Your task to perform on an android device: turn off notifications settings in the gmail app Image 0: 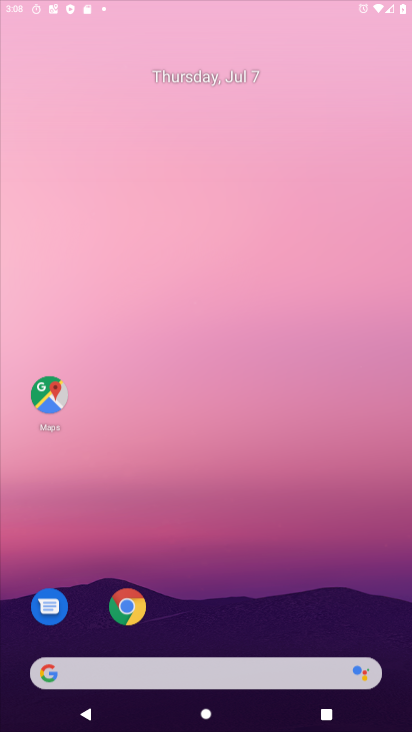
Step 0: click (232, 99)
Your task to perform on an android device: turn off notifications settings in the gmail app Image 1: 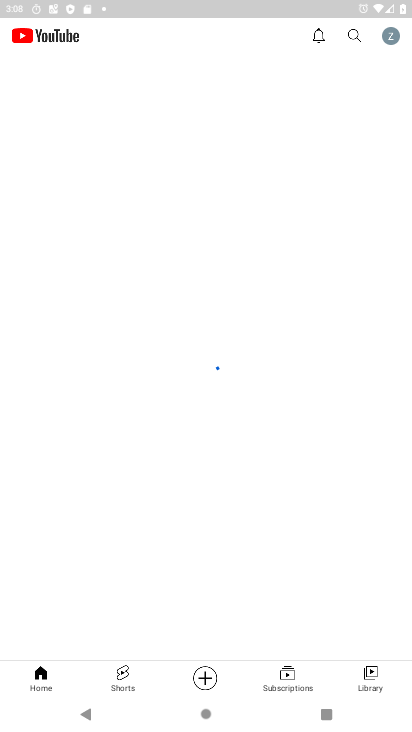
Step 1: press home button
Your task to perform on an android device: turn off notifications settings in the gmail app Image 2: 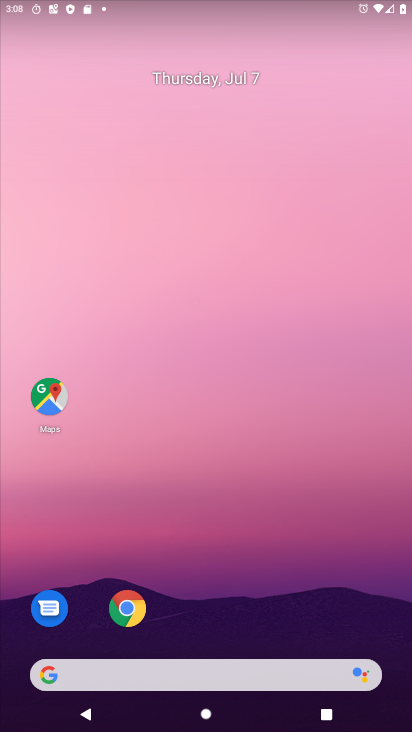
Step 2: drag from (257, 727) to (230, 118)
Your task to perform on an android device: turn off notifications settings in the gmail app Image 3: 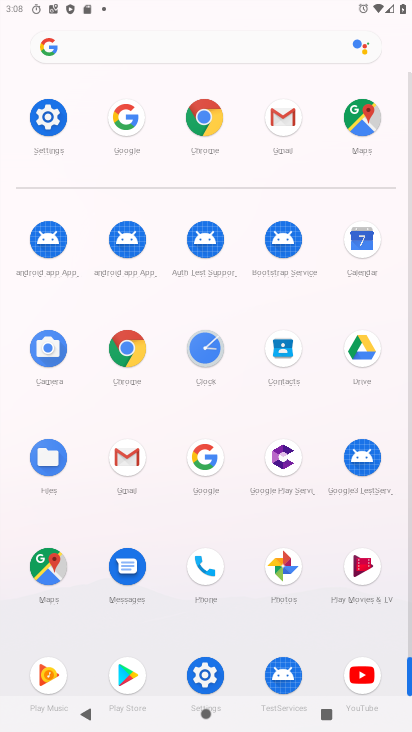
Step 3: click (129, 461)
Your task to perform on an android device: turn off notifications settings in the gmail app Image 4: 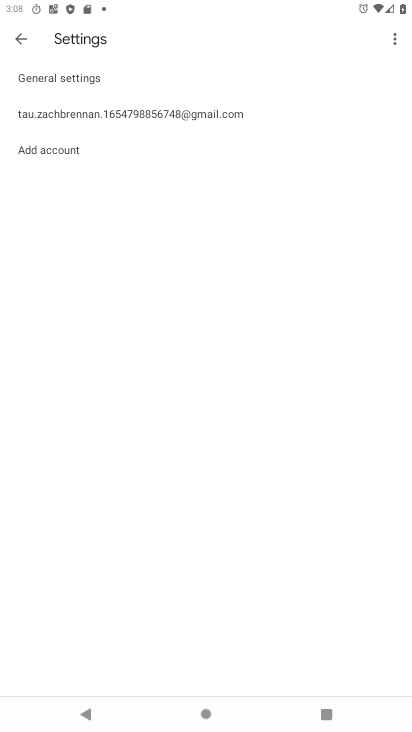
Step 4: click (19, 36)
Your task to perform on an android device: turn off notifications settings in the gmail app Image 5: 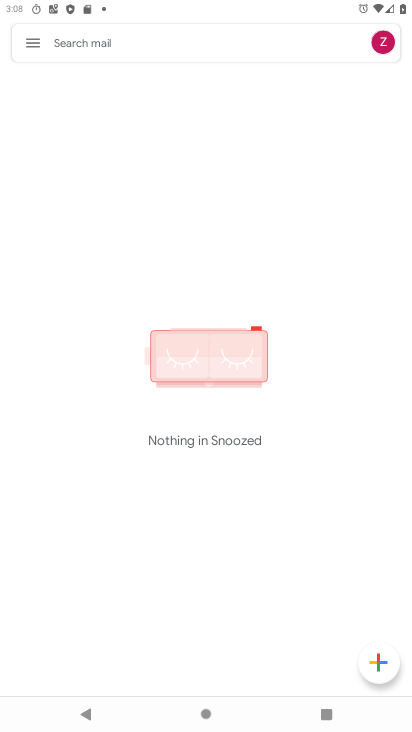
Step 5: click (31, 38)
Your task to perform on an android device: turn off notifications settings in the gmail app Image 6: 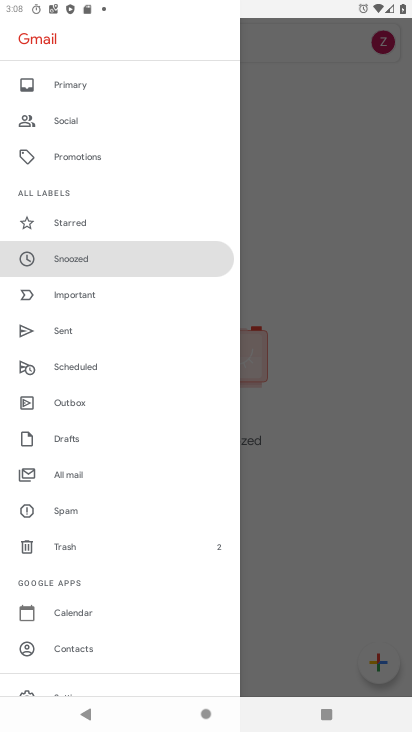
Step 6: drag from (99, 678) to (103, 287)
Your task to perform on an android device: turn off notifications settings in the gmail app Image 7: 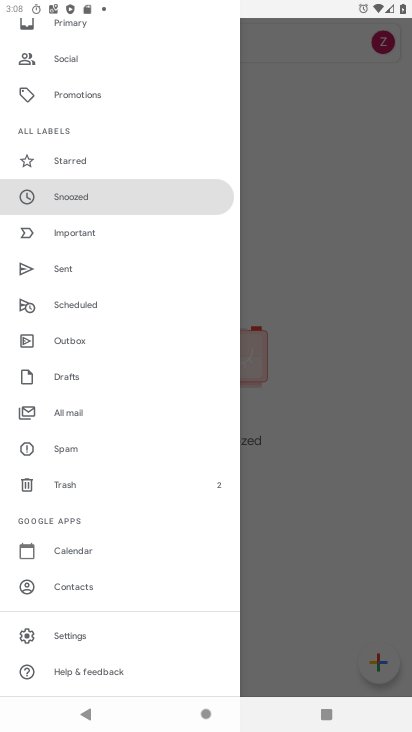
Step 7: click (68, 631)
Your task to perform on an android device: turn off notifications settings in the gmail app Image 8: 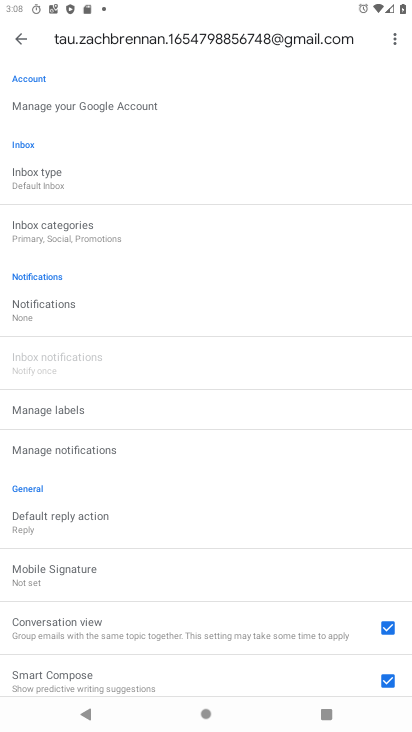
Step 8: task complete